Your task to perform on an android device: set the stopwatch Image 0: 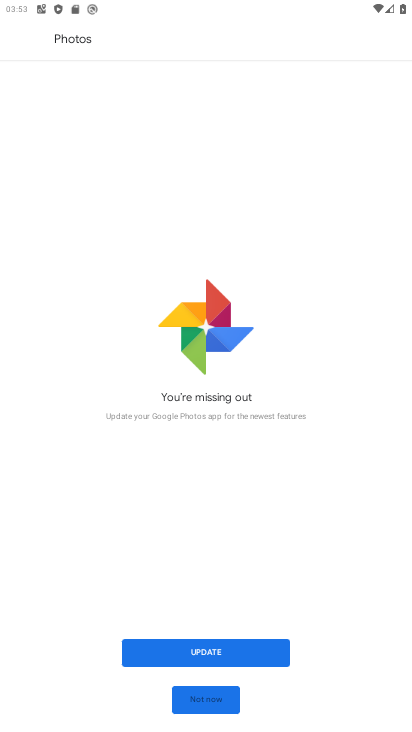
Step 0: press home button
Your task to perform on an android device: set the stopwatch Image 1: 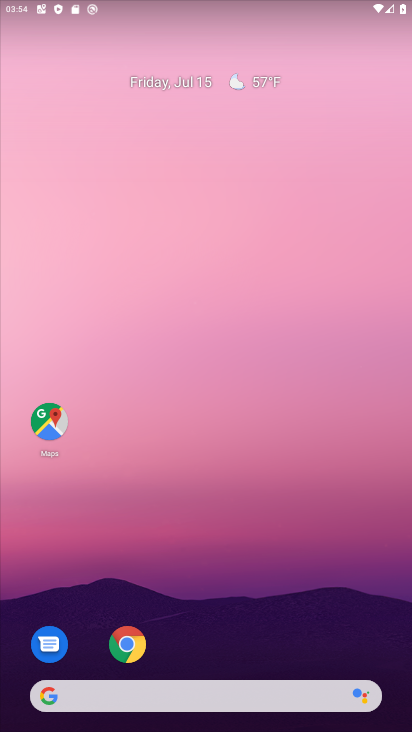
Step 1: drag from (274, 653) to (200, 133)
Your task to perform on an android device: set the stopwatch Image 2: 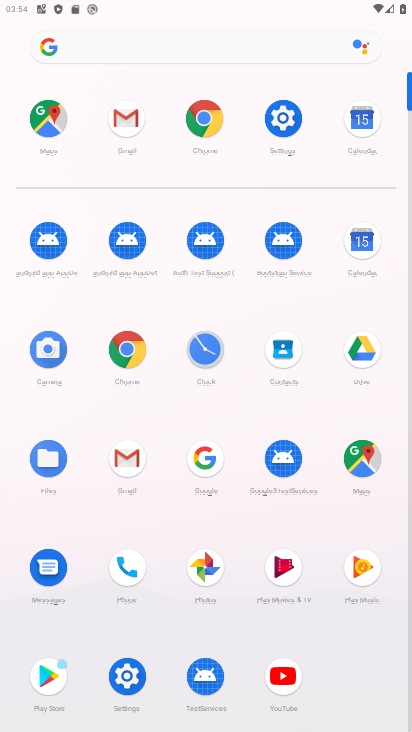
Step 2: click (215, 344)
Your task to perform on an android device: set the stopwatch Image 3: 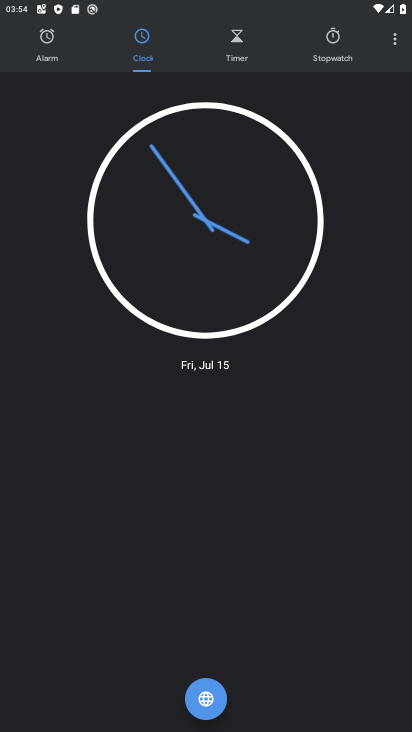
Step 3: click (340, 55)
Your task to perform on an android device: set the stopwatch Image 4: 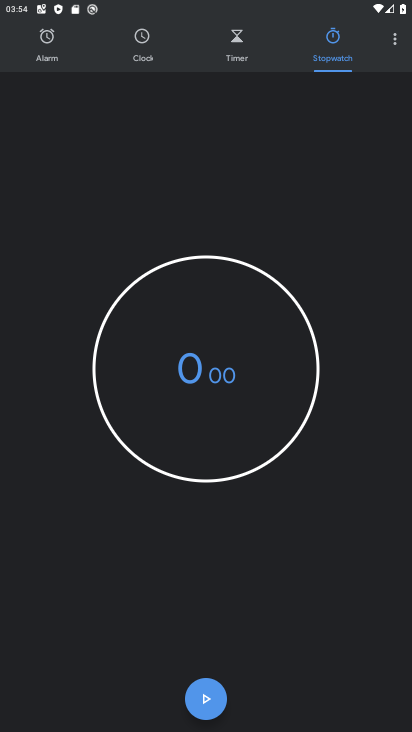
Step 4: click (207, 704)
Your task to perform on an android device: set the stopwatch Image 5: 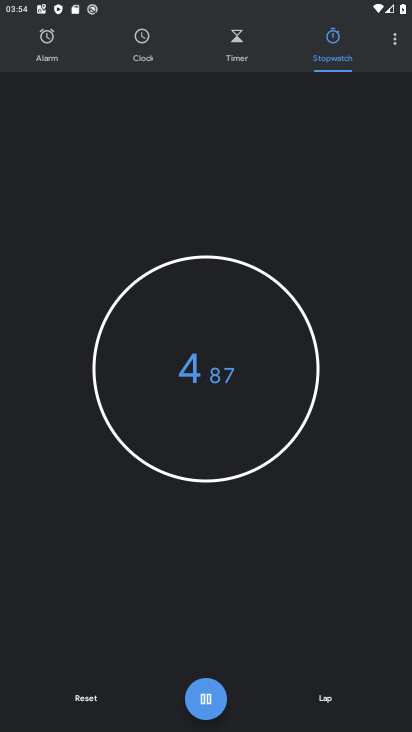
Step 5: task complete